Your task to perform on an android device: Is it going to rain tomorrow? Image 0: 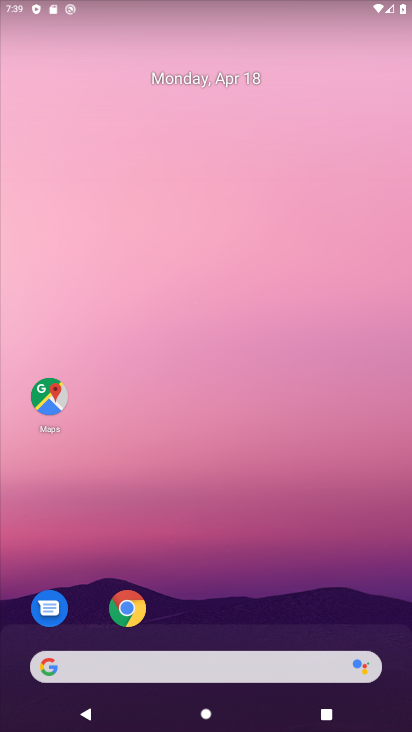
Step 0: drag from (41, 226) to (359, 229)
Your task to perform on an android device: Is it going to rain tomorrow? Image 1: 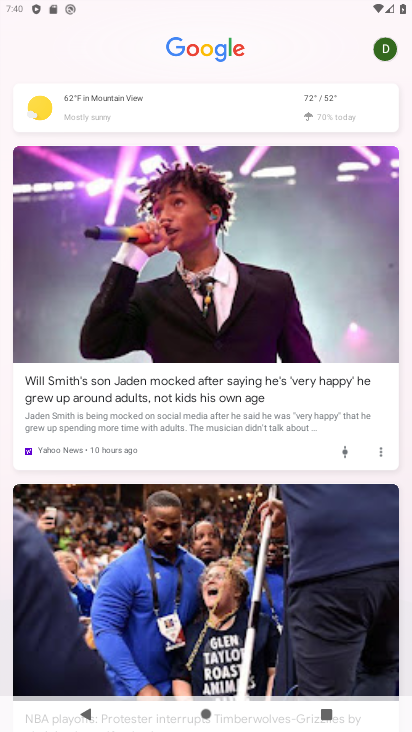
Step 1: click (49, 110)
Your task to perform on an android device: Is it going to rain tomorrow? Image 2: 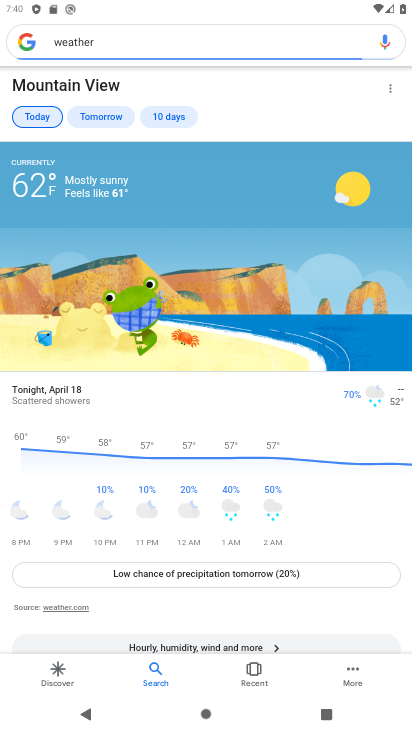
Step 2: click (55, 115)
Your task to perform on an android device: Is it going to rain tomorrow? Image 3: 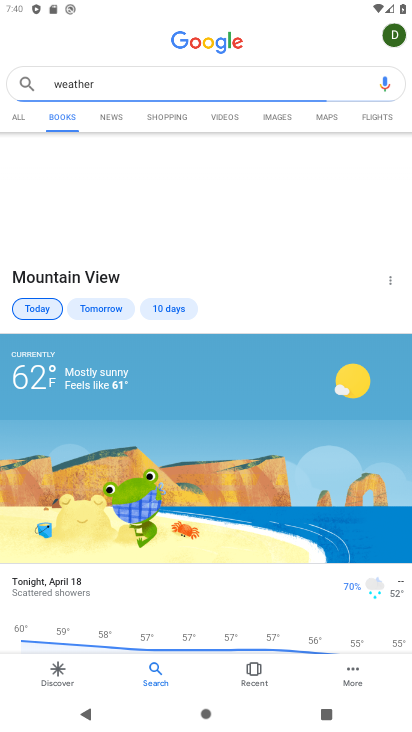
Step 3: click (7, 123)
Your task to perform on an android device: Is it going to rain tomorrow? Image 4: 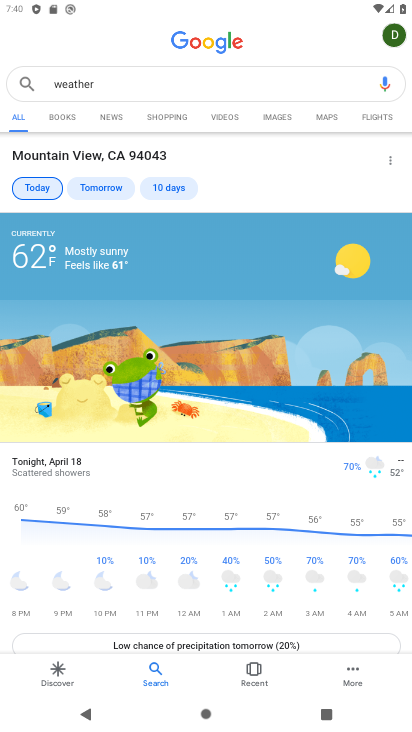
Step 4: click (102, 189)
Your task to perform on an android device: Is it going to rain tomorrow? Image 5: 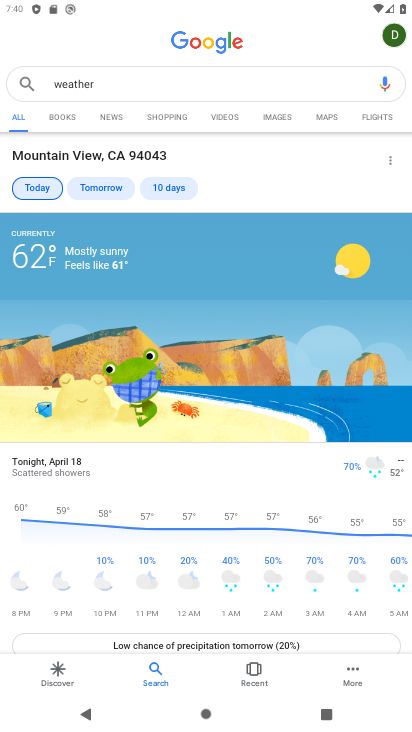
Step 5: click (105, 188)
Your task to perform on an android device: Is it going to rain tomorrow? Image 6: 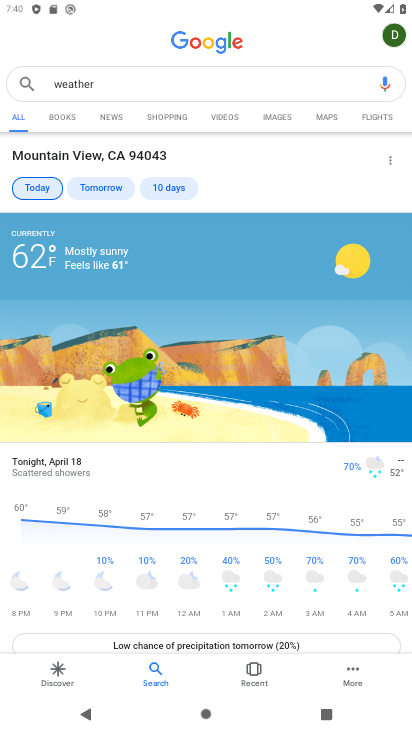
Step 6: click (98, 189)
Your task to perform on an android device: Is it going to rain tomorrow? Image 7: 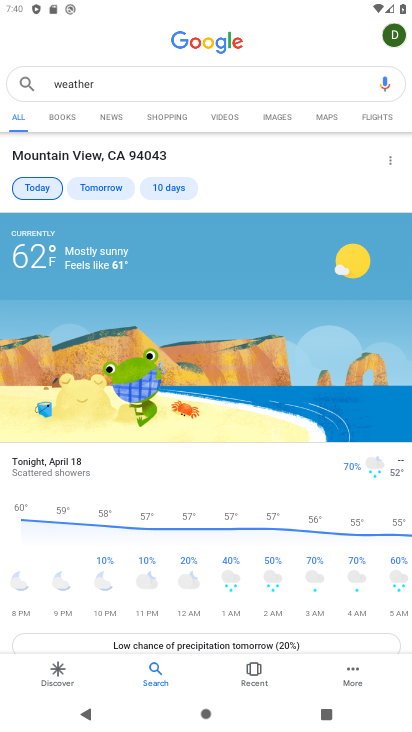
Step 7: click (98, 189)
Your task to perform on an android device: Is it going to rain tomorrow? Image 8: 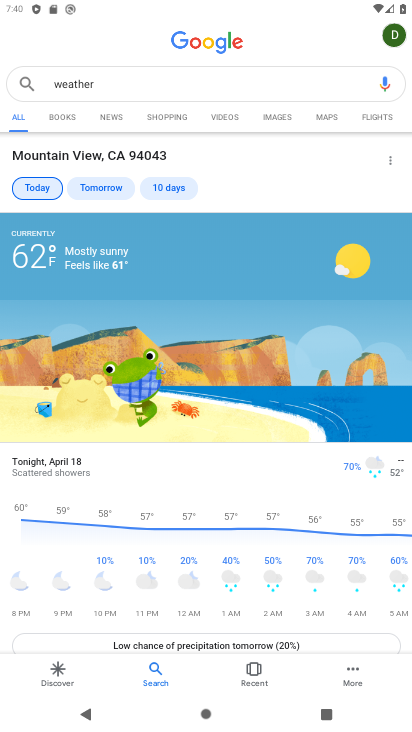
Step 8: click (98, 189)
Your task to perform on an android device: Is it going to rain tomorrow? Image 9: 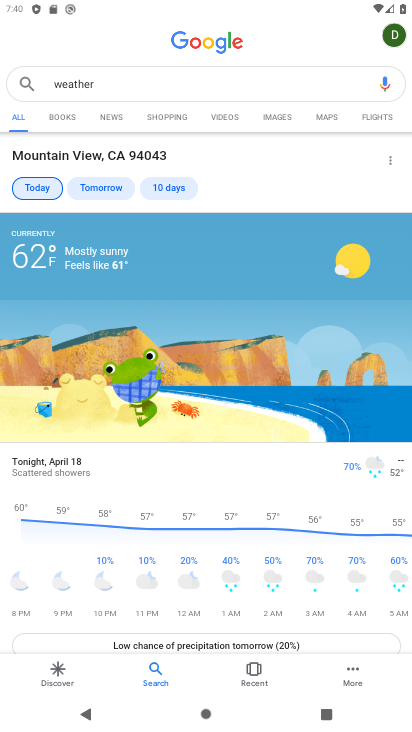
Step 9: click (108, 190)
Your task to perform on an android device: Is it going to rain tomorrow? Image 10: 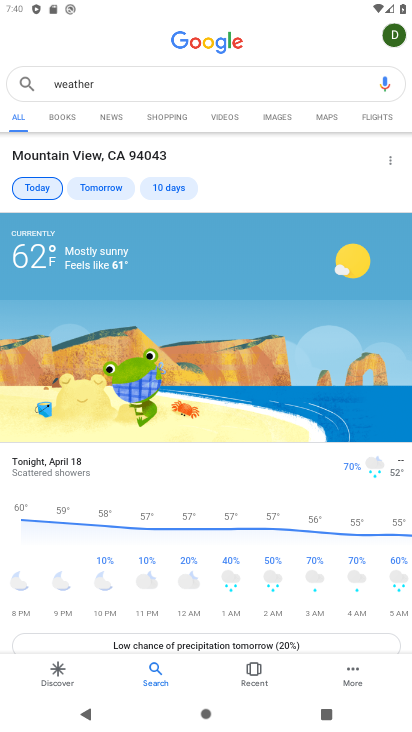
Step 10: click (108, 190)
Your task to perform on an android device: Is it going to rain tomorrow? Image 11: 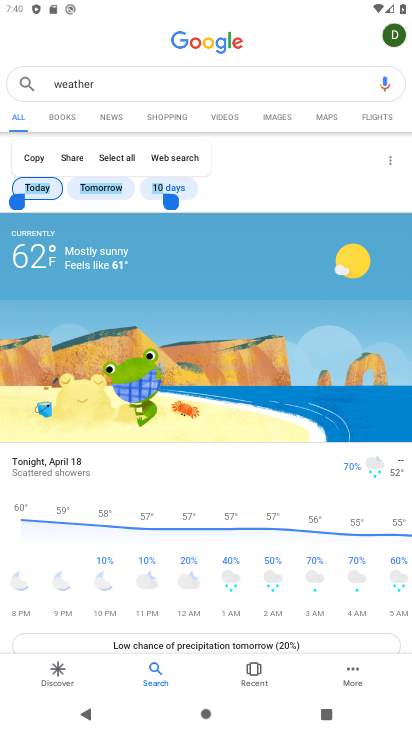
Step 11: click (108, 190)
Your task to perform on an android device: Is it going to rain tomorrow? Image 12: 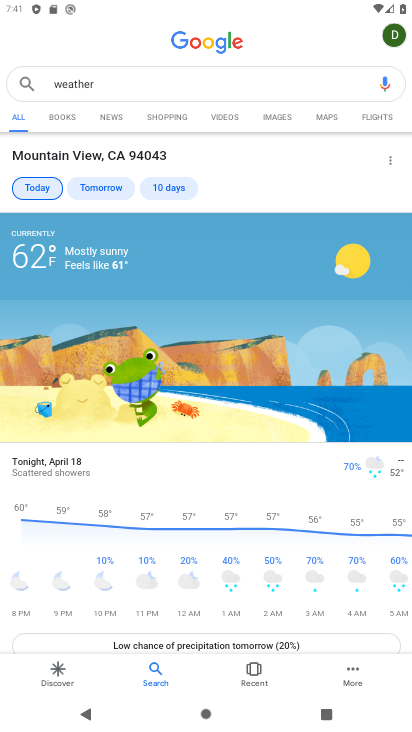
Step 12: click (108, 190)
Your task to perform on an android device: Is it going to rain tomorrow? Image 13: 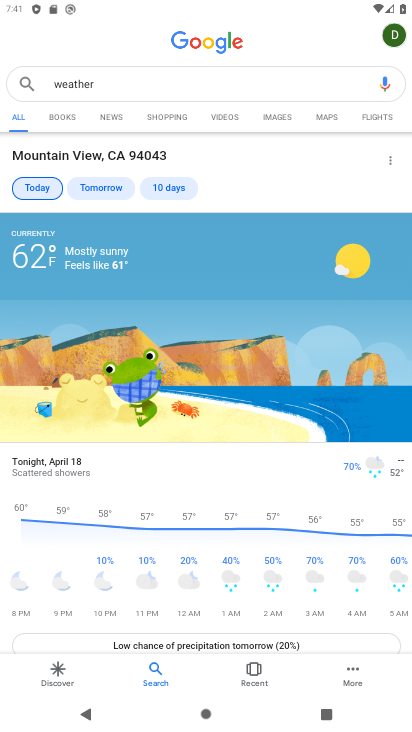
Step 13: drag from (170, 461) to (142, 201)
Your task to perform on an android device: Is it going to rain tomorrow? Image 14: 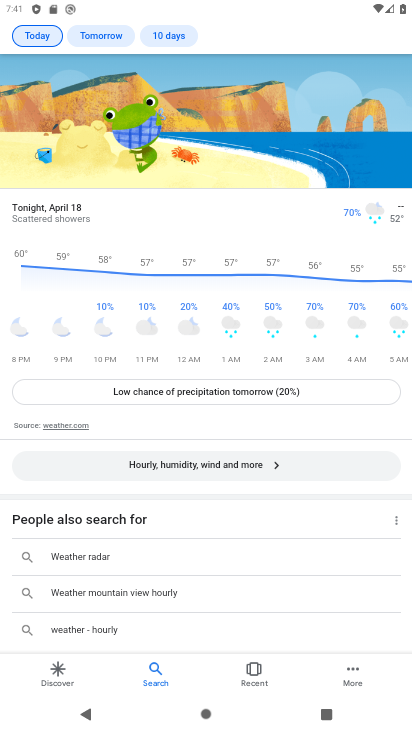
Step 14: click (119, 34)
Your task to perform on an android device: Is it going to rain tomorrow? Image 15: 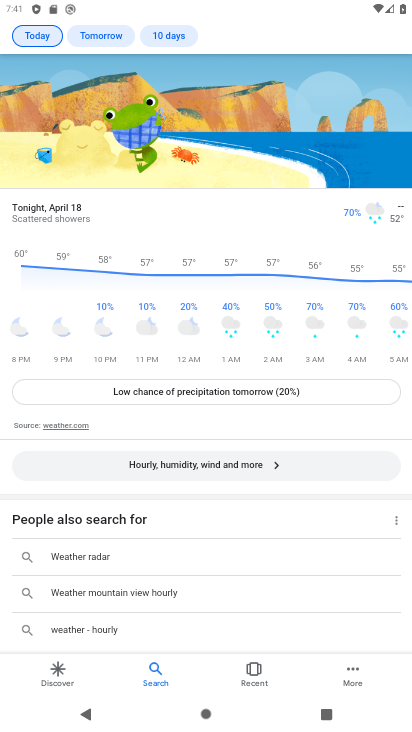
Step 15: click (119, 34)
Your task to perform on an android device: Is it going to rain tomorrow? Image 16: 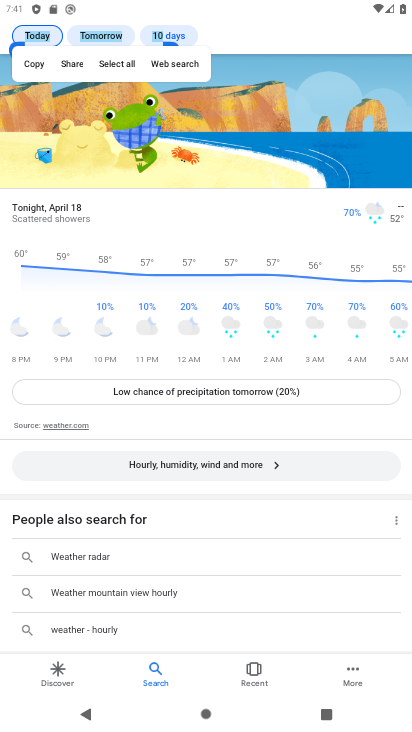
Step 16: click (70, 35)
Your task to perform on an android device: Is it going to rain tomorrow? Image 17: 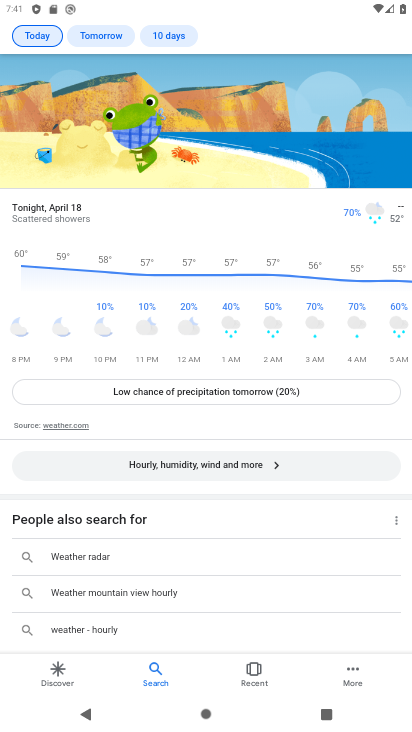
Step 17: click (70, 35)
Your task to perform on an android device: Is it going to rain tomorrow? Image 18: 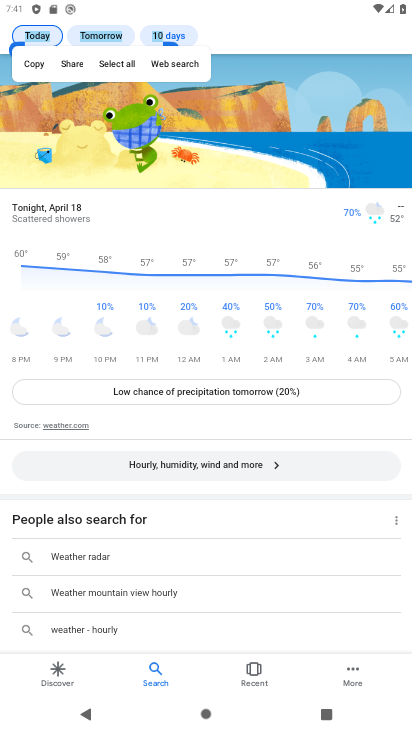
Step 18: click (70, 35)
Your task to perform on an android device: Is it going to rain tomorrow? Image 19: 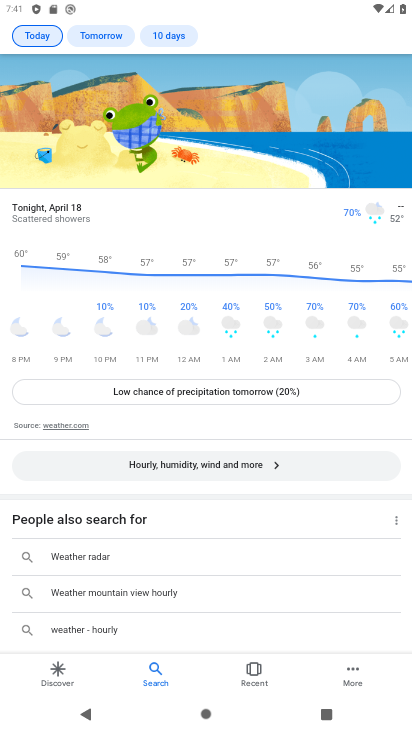
Step 19: task complete